Your task to perform on an android device: Open Youtube and go to "Your channel" Image 0: 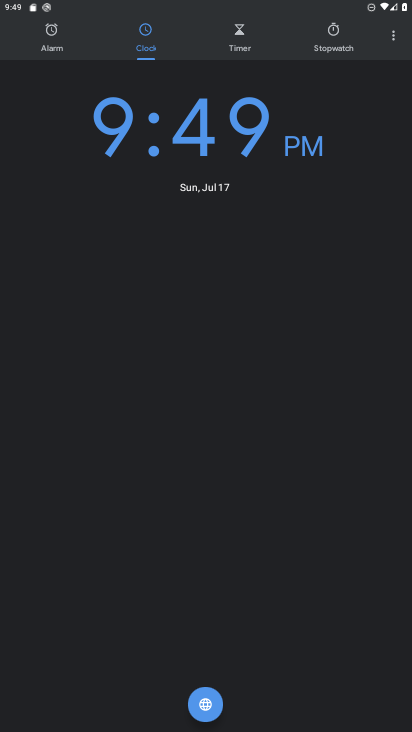
Step 0: press home button
Your task to perform on an android device: Open Youtube and go to "Your channel" Image 1: 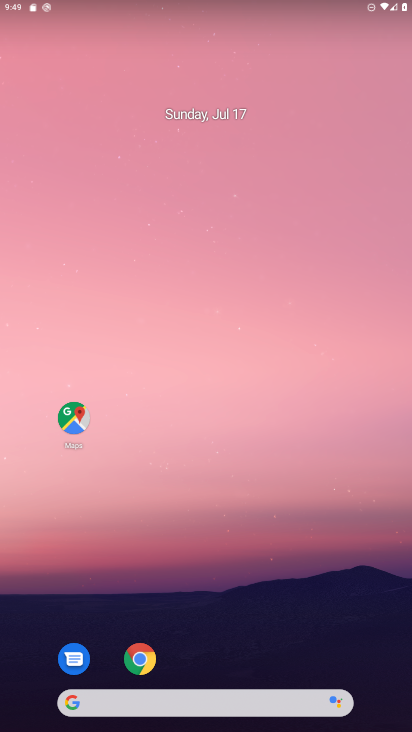
Step 1: drag from (289, 634) to (260, 3)
Your task to perform on an android device: Open Youtube and go to "Your channel" Image 2: 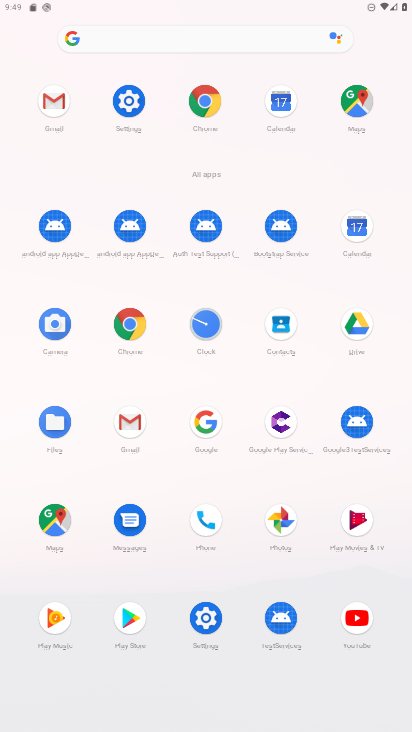
Step 2: click (356, 621)
Your task to perform on an android device: Open Youtube and go to "Your channel" Image 3: 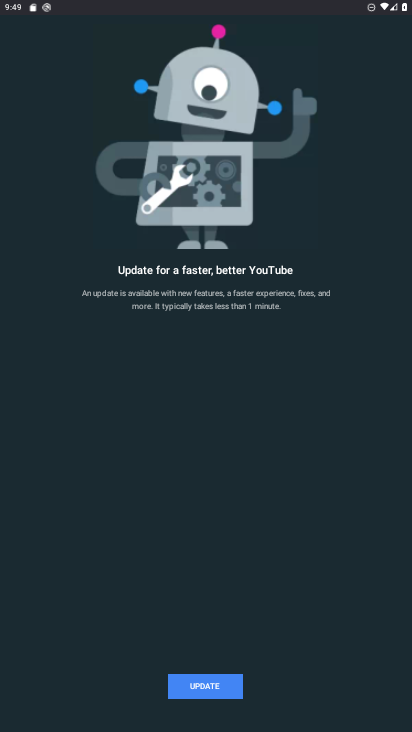
Step 3: click (198, 697)
Your task to perform on an android device: Open Youtube and go to "Your channel" Image 4: 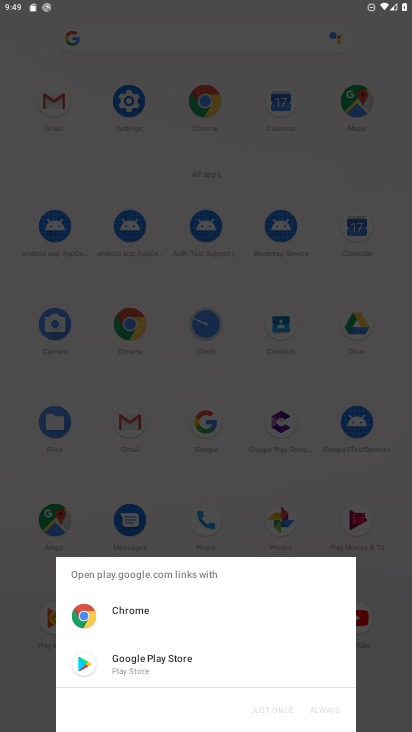
Step 4: click (165, 609)
Your task to perform on an android device: Open Youtube and go to "Your channel" Image 5: 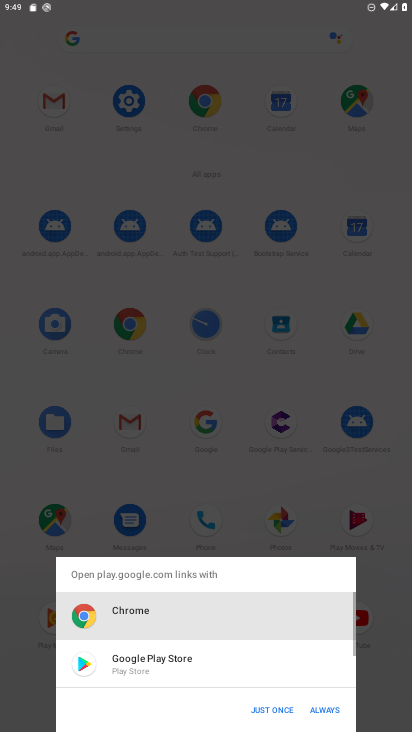
Step 5: click (145, 653)
Your task to perform on an android device: Open Youtube and go to "Your channel" Image 6: 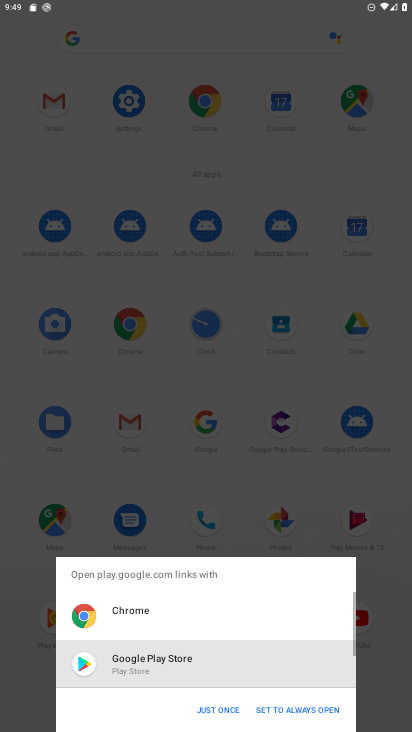
Step 6: click (211, 704)
Your task to perform on an android device: Open Youtube and go to "Your channel" Image 7: 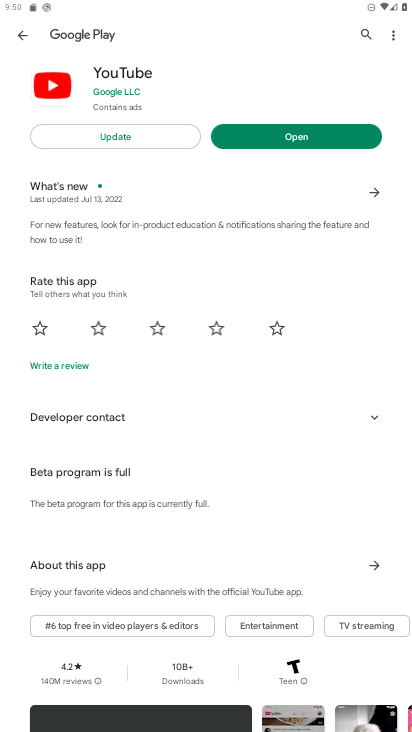
Step 7: click (131, 139)
Your task to perform on an android device: Open Youtube and go to "Your channel" Image 8: 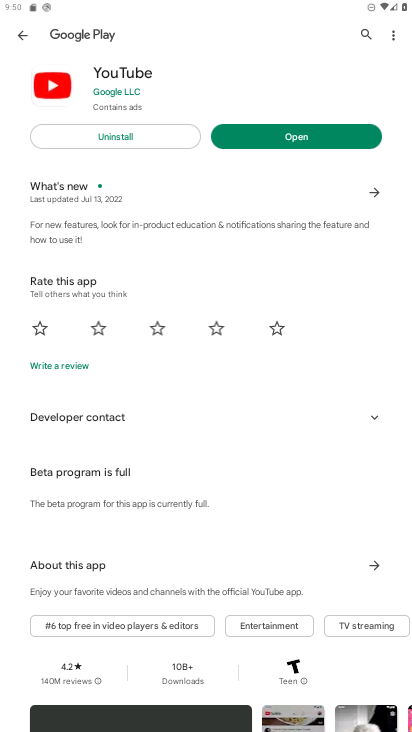
Step 8: click (351, 127)
Your task to perform on an android device: Open Youtube and go to "Your channel" Image 9: 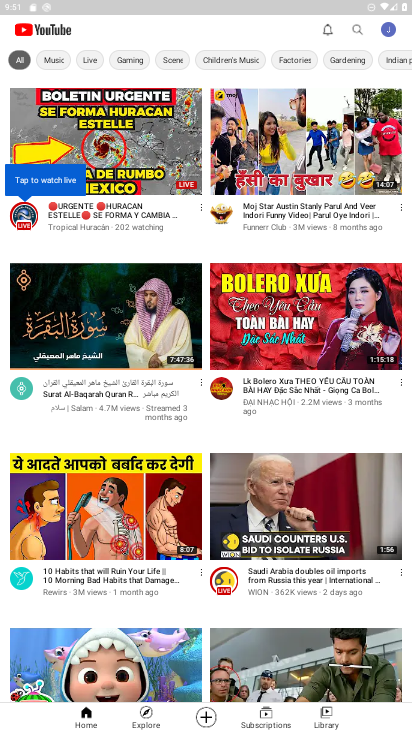
Step 9: click (391, 33)
Your task to perform on an android device: Open Youtube and go to "Your channel" Image 10: 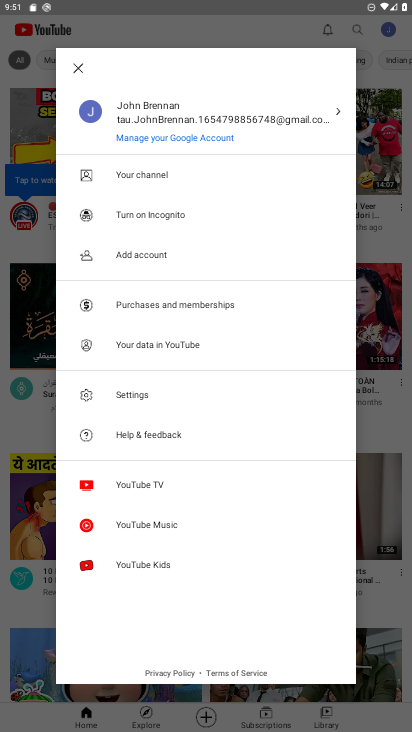
Step 10: click (193, 171)
Your task to perform on an android device: Open Youtube and go to "Your channel" Image 11: 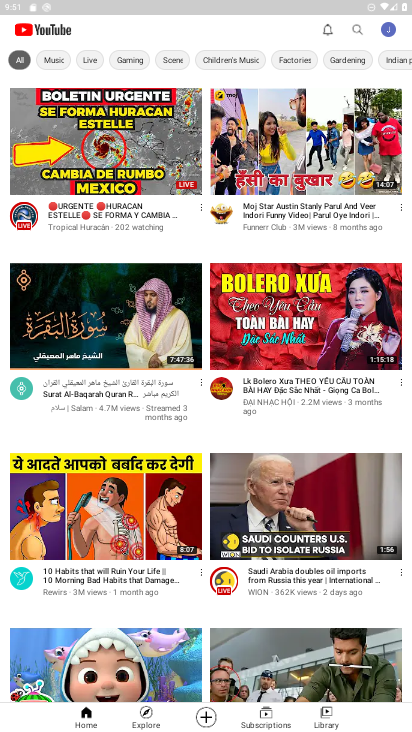
Step 11: task complete